Your task to perform on an android device: open chrome and create a bookmark for the current page Image 0: 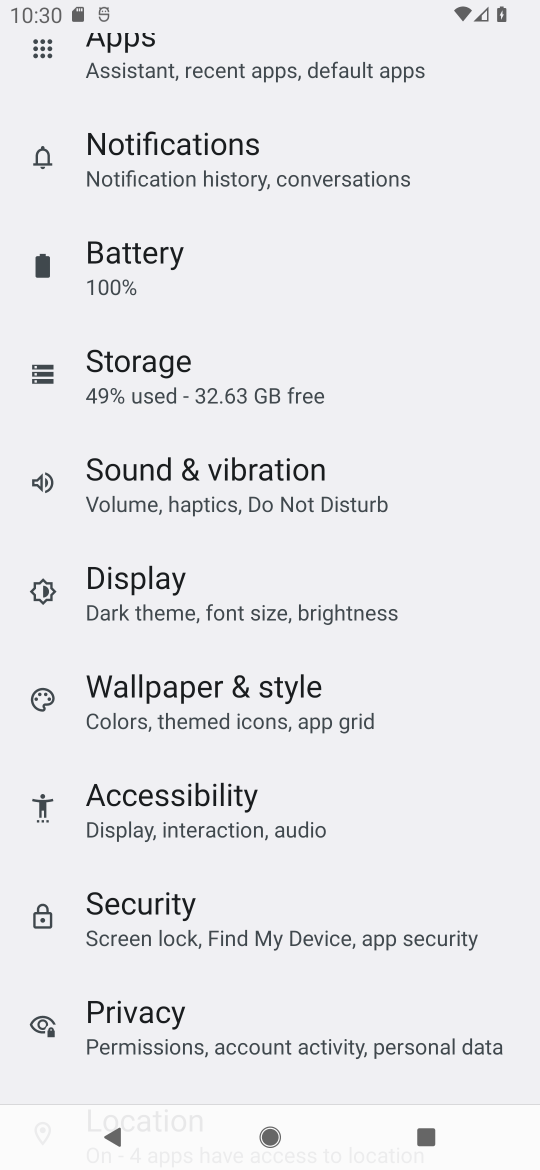
Step 0: press home button
Your task to perform on an android device: open chrome and create a bookmark for the current page Image 1: 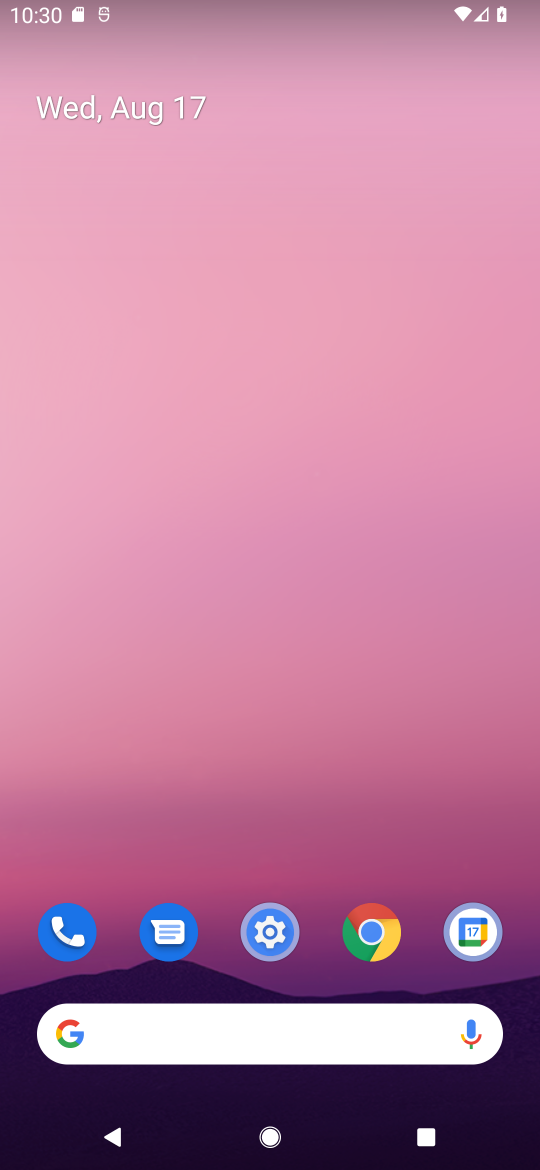
Step 1: click (374, 929)
Your task to perform on an android device: open chrome and create a bookmark for the current page Image 2: 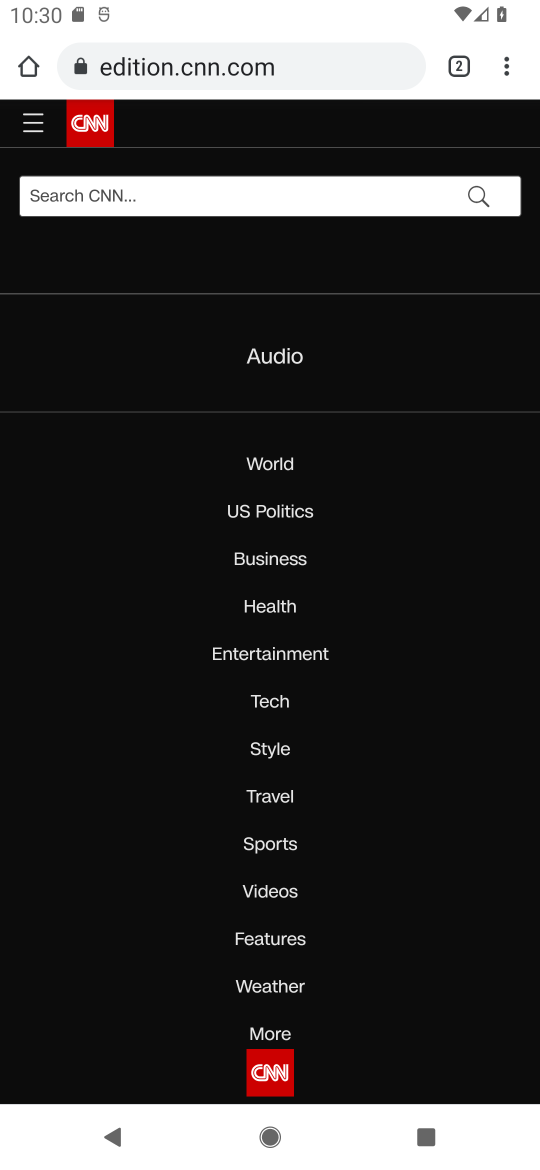
Step 2: task complete